Your task to perform on an android device: allow cookies in the chrome app Image 0: 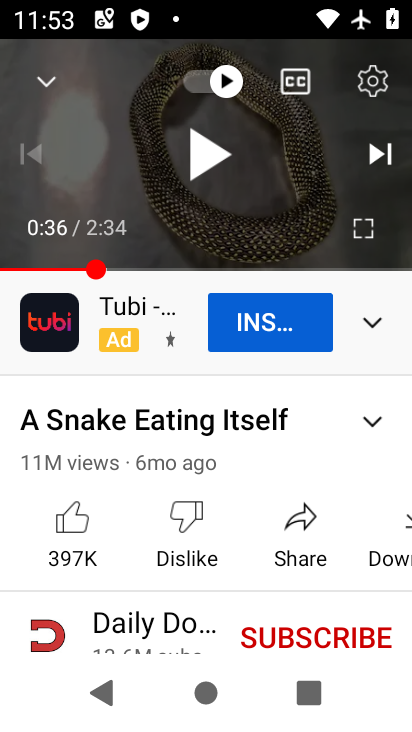
Step 0: drag from (242, 589) to (243, 217)
Your task to perform on an android device: allow cookies in the chrome app Image 1: 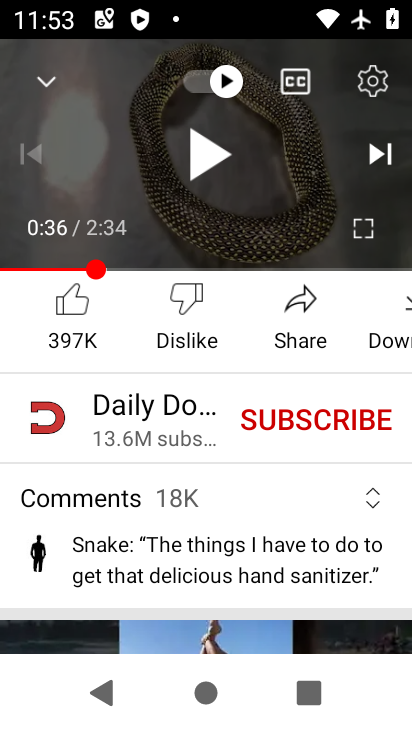
Step 1: drag from (251, 556) to (321, 181)
Your task to perform on an android device: allow cookies in the chrome app Image 2: 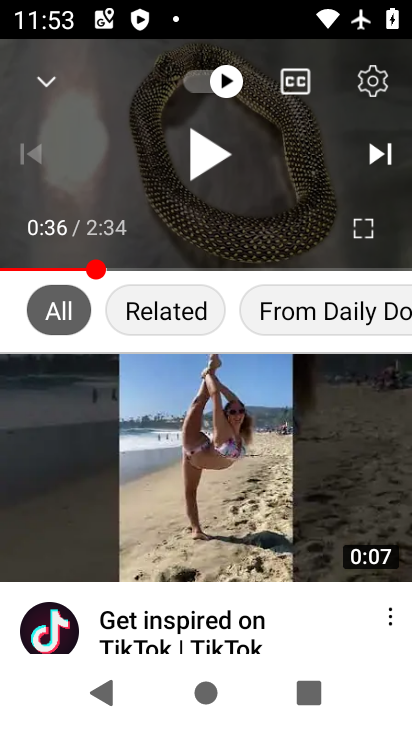
Step 2: press home button
Your task to perform on an android device: allow cookies in the chrome app Image 3: 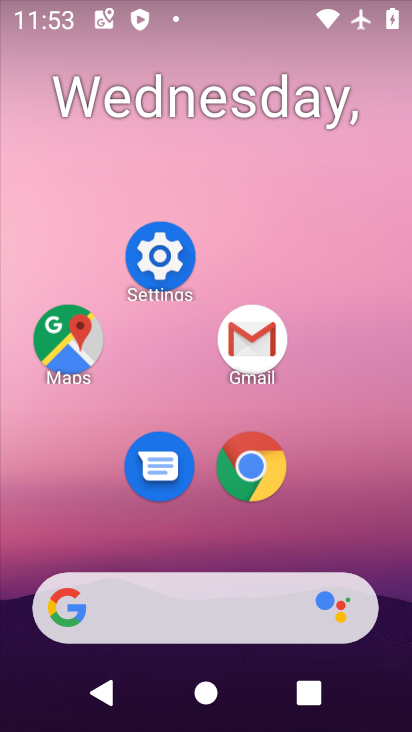
Step 3: drag from (205, 516) to (240, 135)
Your task to perform on an android device: allow cookies in the chrome app Image 4: 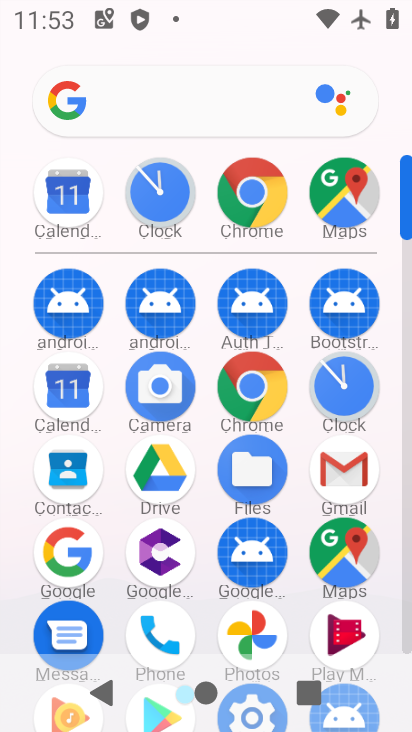
Step 4: click (254, 380)
Your task to perform on an android device: allow cookies in the chrome app Image 5: 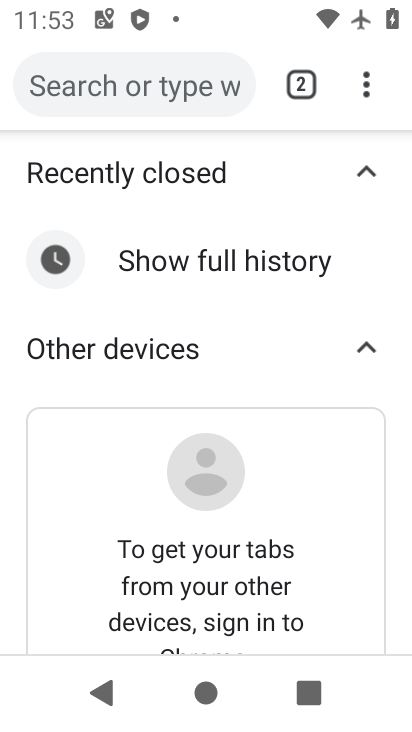
Step 5: drag from (365, 75) to (132, 524)
Your task to perform on an android device: allow cookies in the chrome app Image 6: 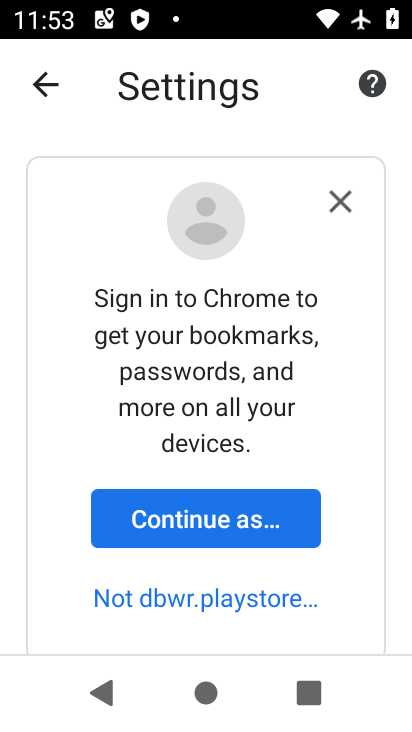
Step 6: click (335, 198)
Your task to perform on an android device: allow cookies in the chrome app Image 7: 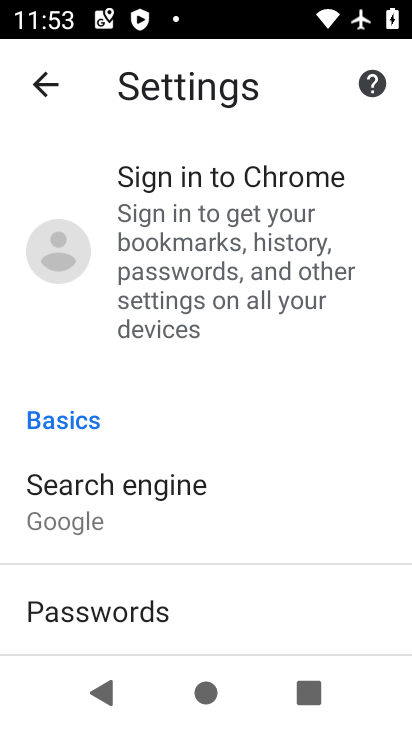
Step 7: drag from (193, 532) to (233, 147)
Your task to perform on an android device: allow cookies in the chrome app Image 8: 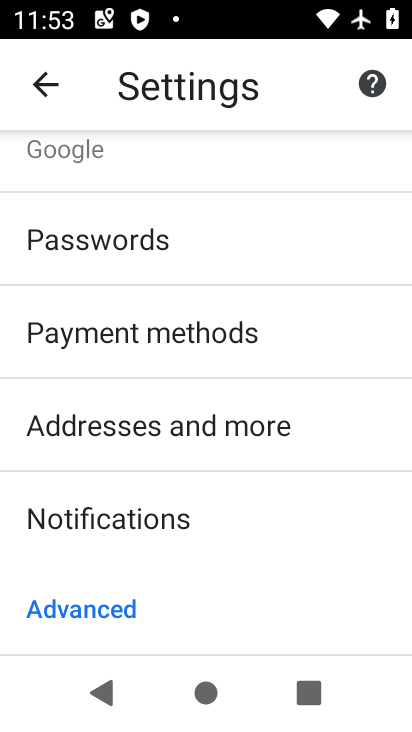
Step 8: drag from (198, 512) to (280, 141)
Your task to perform on an android device: allow cookies in the chrome app Image 9: 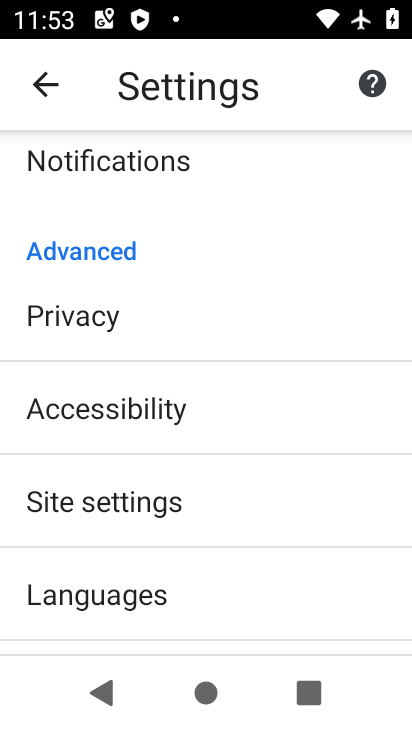
Step 9: click (153, 495)
Your task to perform on an android device: allow cookies in the chrome app Image 10: 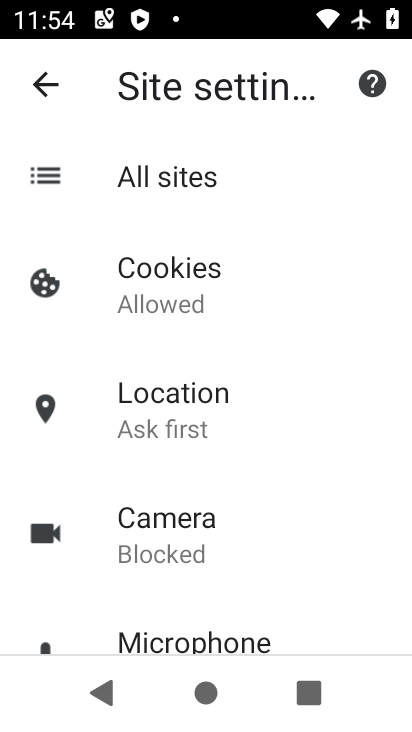
Step 10: click (186, 298)
Your task to perform on an android device: allow cookies in the chrome app Image 11: 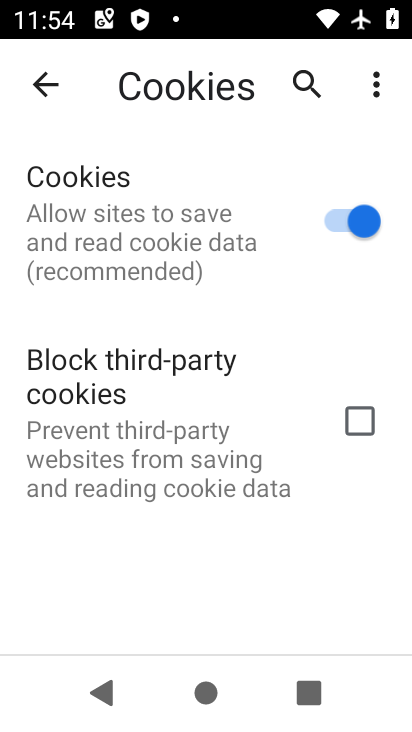
Step 11: task complete